Your task to perform on an android device: Go to Android settings Image 0: 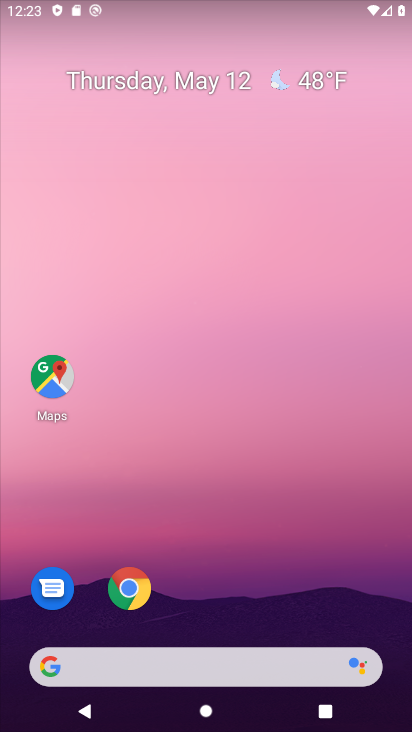
Step 0: drag from (406, 568) to (153, 66)
Your task to perform on an android device: Go to Android settings Image 1: 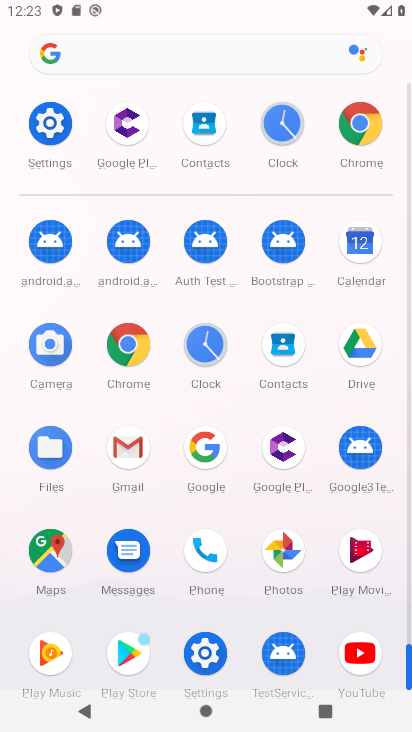
Step 1: click (48, 127)
Your task to perform on an android device: Go to Android settings Image 2: 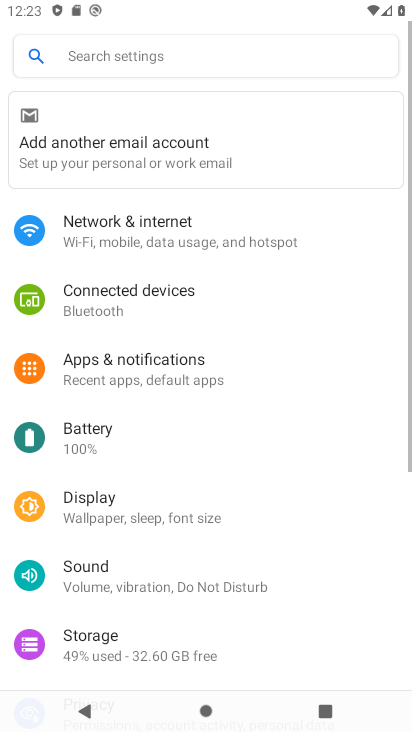
Step 2: drag from (213, 586) to (215, 141)
Your task to perform on an android device: Go to Android settings Image 3: 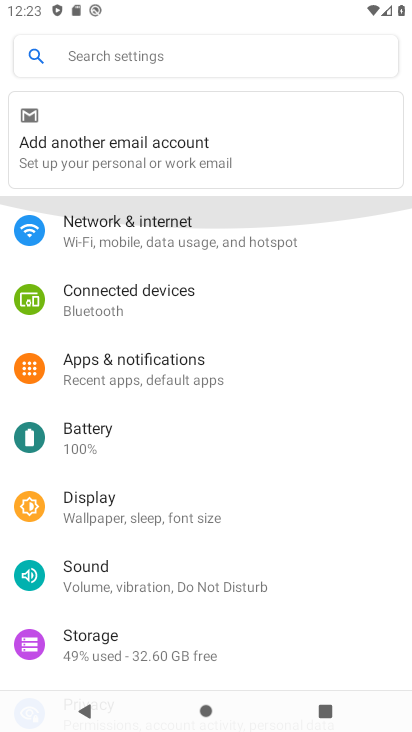
Step 3: drag from (246, 568) to (239, 98)
Your task to perform on an android device: Go to Android settings Image 4: 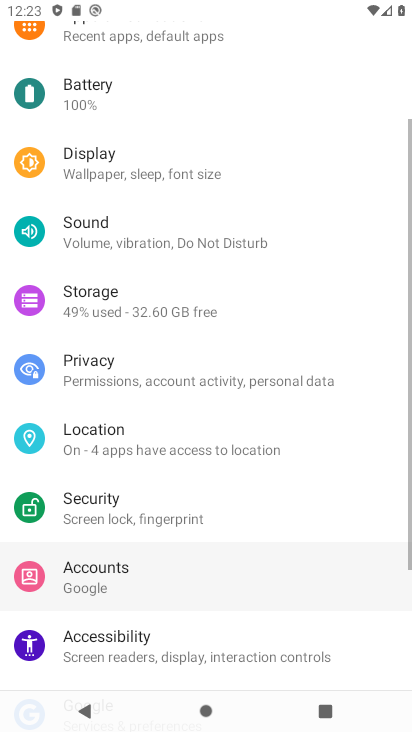
Step 4: drag from (236, 518) to (230, 80)
Your task to perform on an android device: Go to Android settings Image 5: 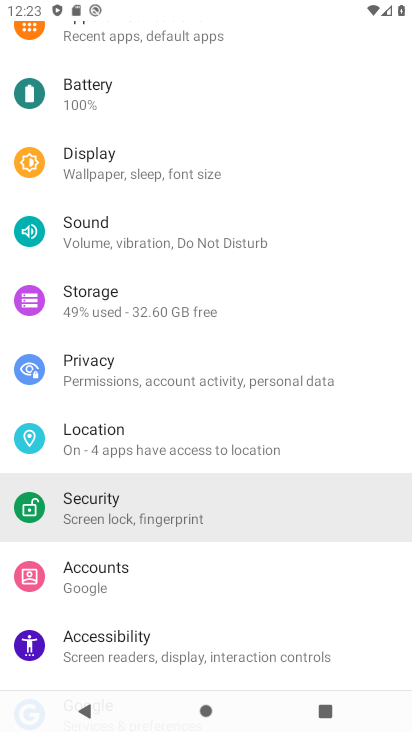
Step 5: drag from (261, 519) to (201, 55)
Your task to perform on an android device: Go to Android settings Image 6: 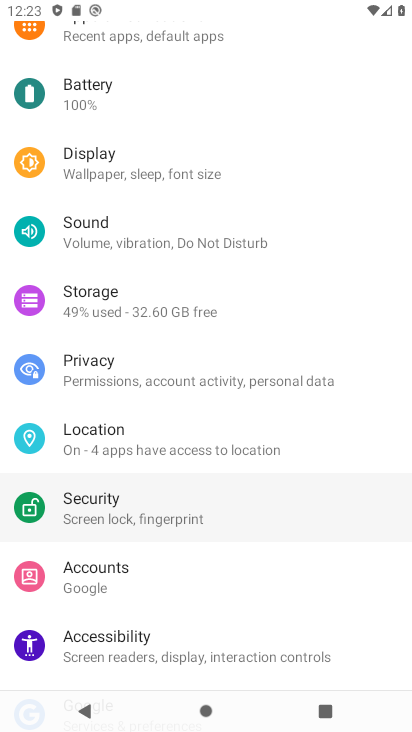
Step 6: drag from (183, 464) to (173, 52)
Your task to perform on an android device: Go to Android settings Image 7: 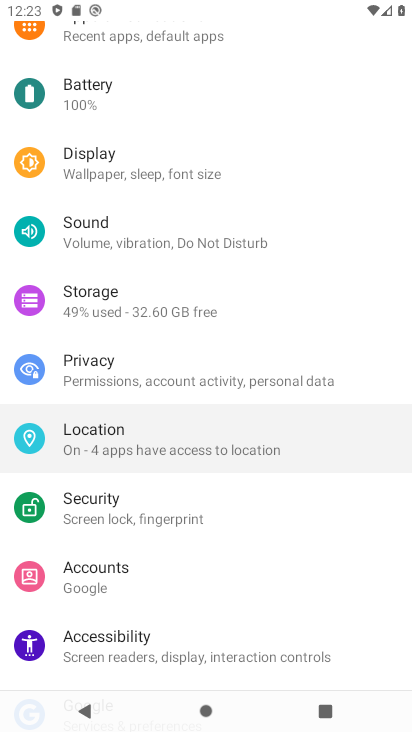
Step 7: drag from (214, 539) to (214, 169)
Your task to perform on an android device: Go to Android settings Image 8: 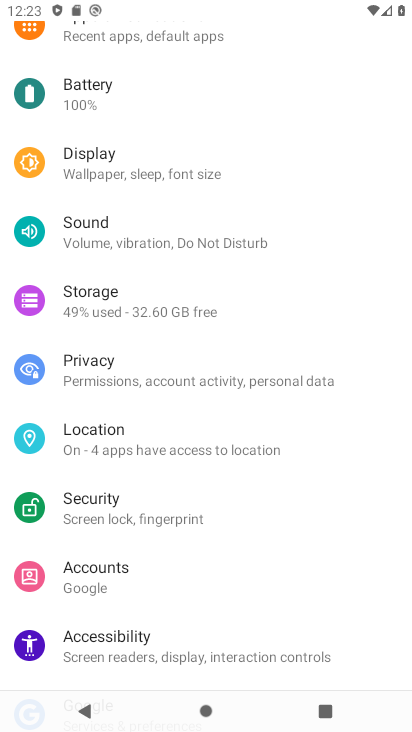
Step 8: drag from (271, 518) to (266, 52)
Your task to perform on an android device: Go to Android settings Image 9: 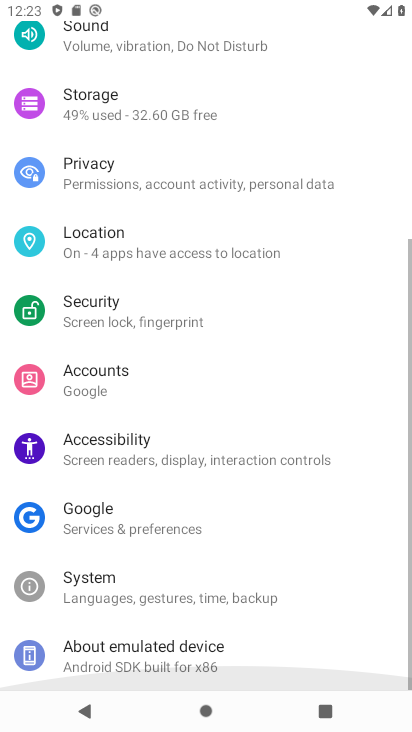
Step 9: drag from (220, 350) to (192, 35)
Your task to perform on an android device: Go to Android settings Image 10: 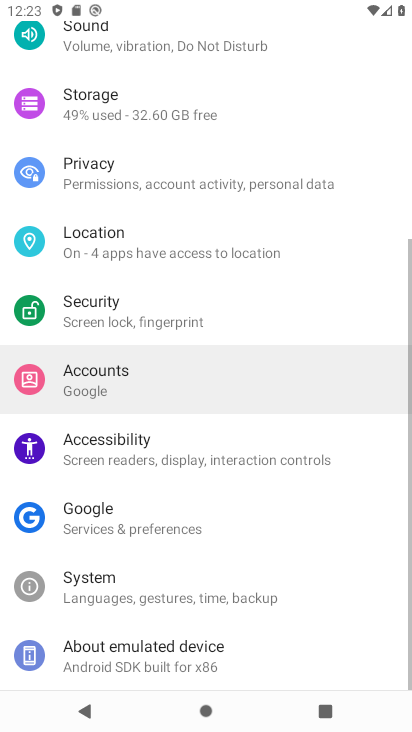
Step 10: drag from (179, 360) to (184, 156)
Your task to perform on an android device: Go to Android settings Image 11: 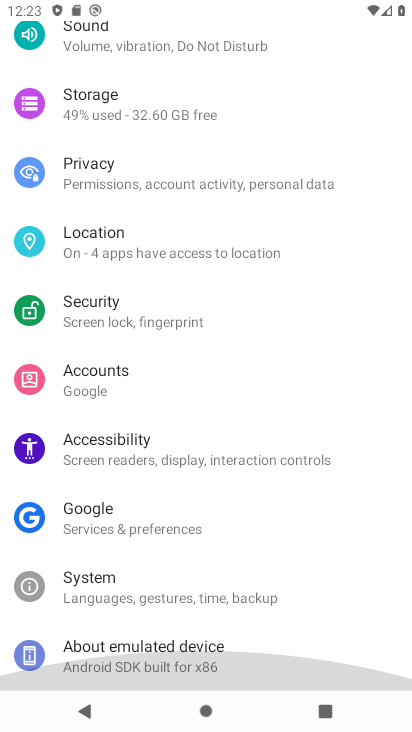
Step 11: drag from (225, 333) to (235, 130)
Your task to perform on an android device: Go to Android settings Image 12: 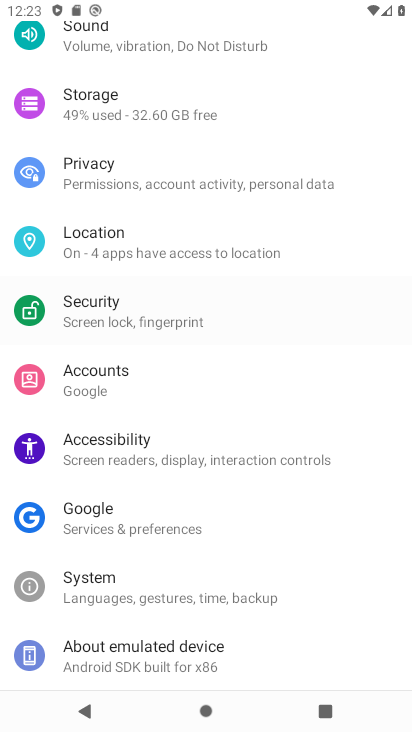
Step 12: drag from (243, 322) to (267, 235)
Your task to perform on an android device: Go to Android settings Image 13: 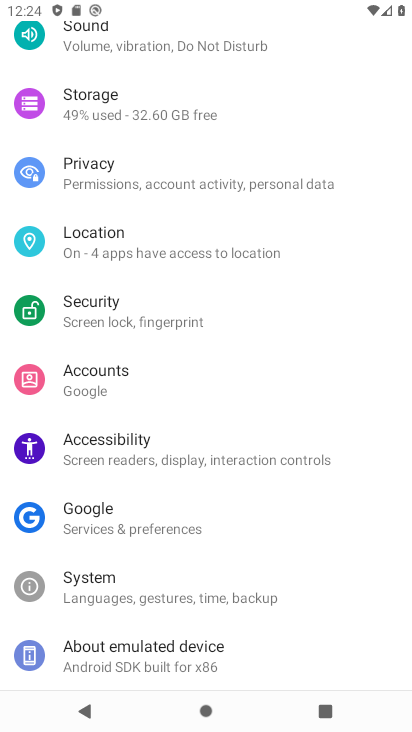
Step 13: drag from (230, 595) to (147, 134)
Your task to perform on an android device: Go to Android settings Image 14: 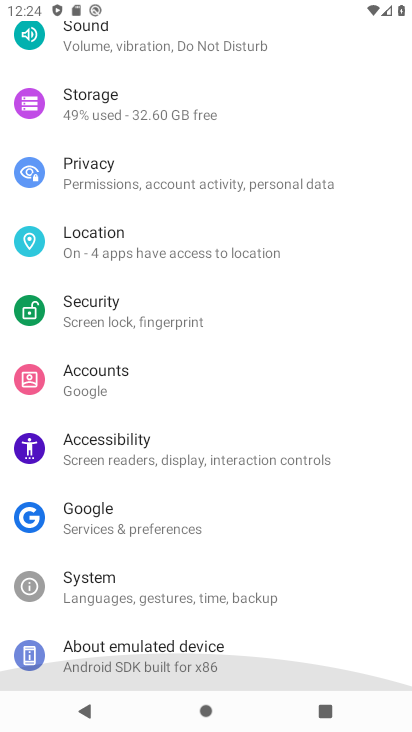
Step 14: drag from (233, 506) to (196, 187)
Your task to perform on an android device: Go to Android settings Image 15: 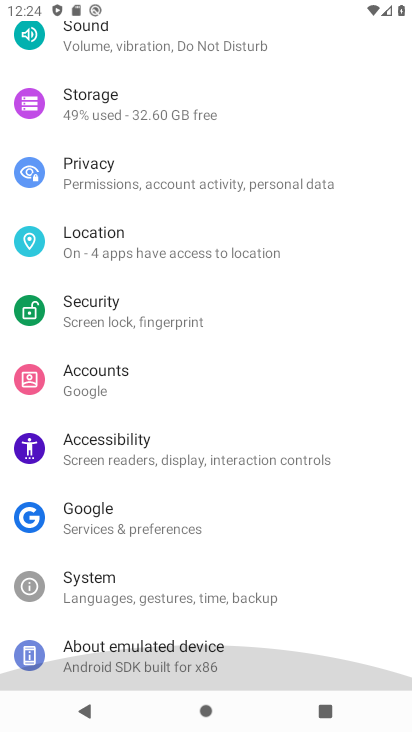
Step 15: drag from (185, 546) to (218, 259)
Your task to perform on an android device: Go to Android settings Image 16: 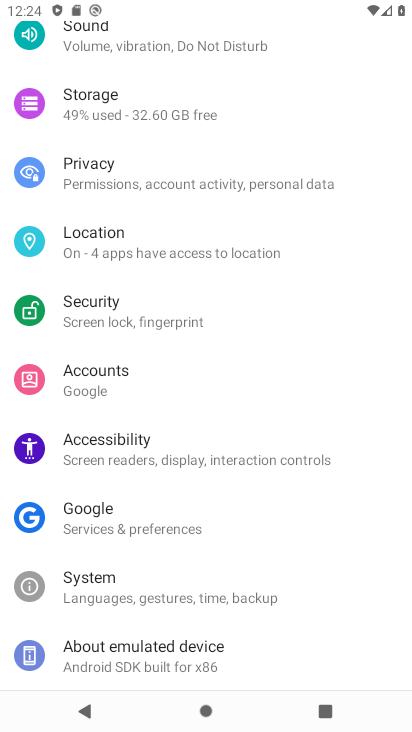
Step 16: click (159, 648)
Your task to perform on an android device: Go to Android settings Image 17: 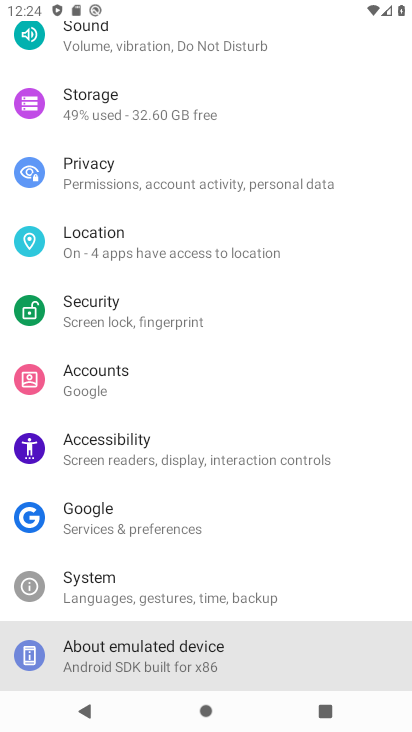
Step 17: click (160, 648)
Your task to perform on an android device: Go to Android settings Image 18: 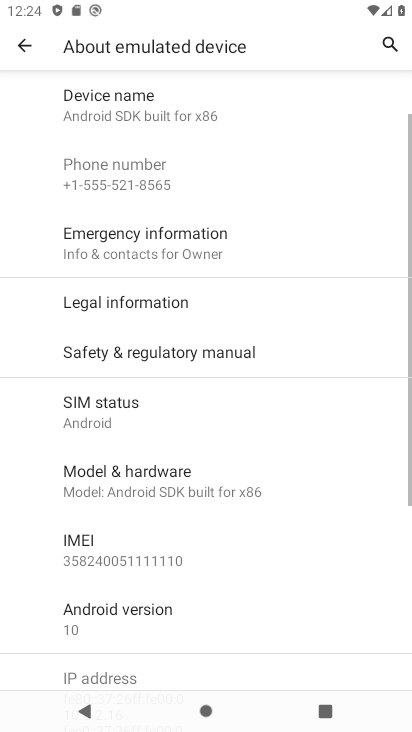
Step 18: task complete